Your task to perform on an android device: Open Yahoo.com Image 0: 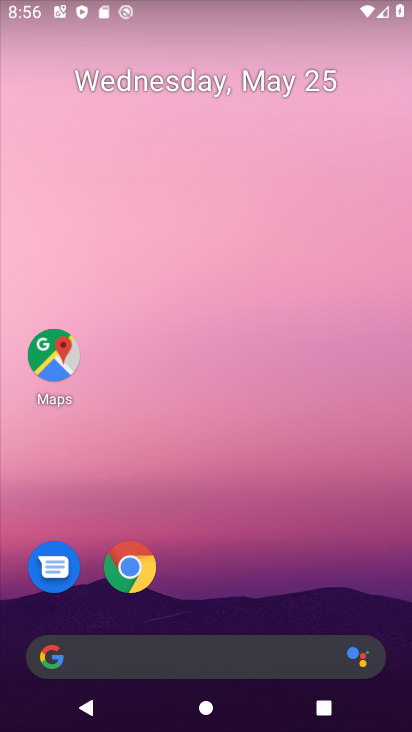
Step 0: click (319, 595)
Your task to perform on an android device: Open Yahoo.com Image 1: 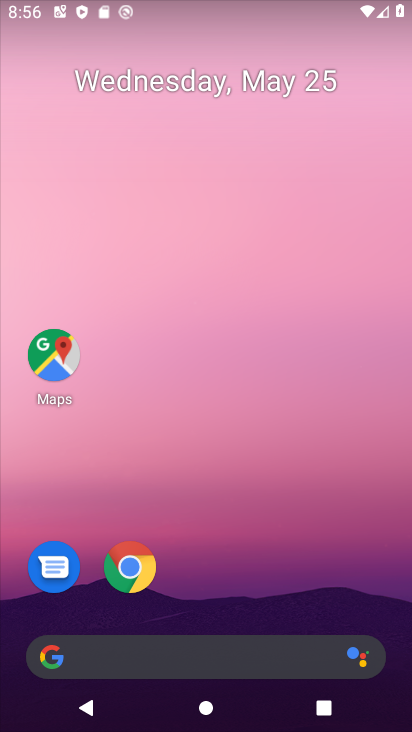
Step 1: click (241, 647)
Your task to perform on an android device: Open Yahoo.com Image 2: 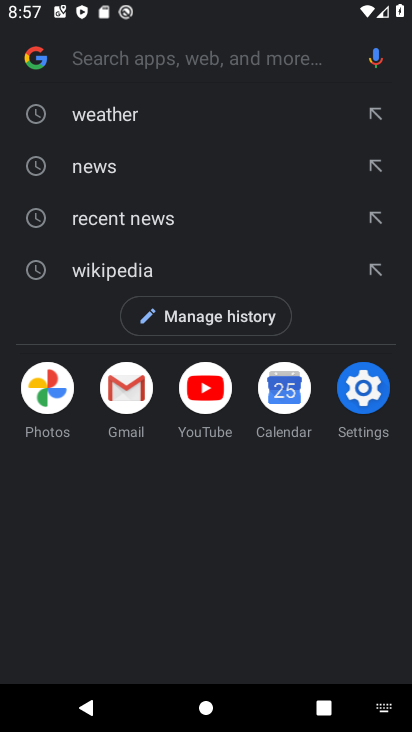
Step 2: type "yahoo.com"
Your task to perform on an android device: Open Yahoo.com Image 3: 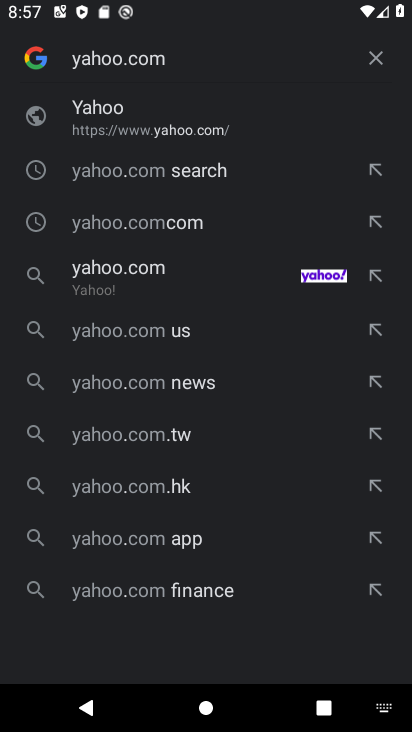
Step 3: click (142, 78)
Your task to perform on an android device: Open Yahoo.com Image 4: 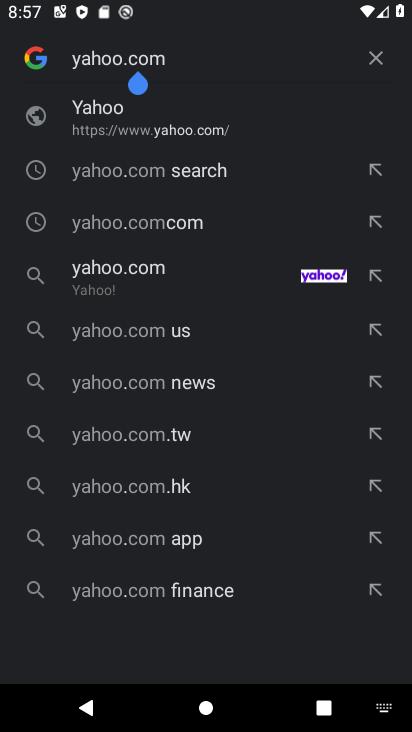
Step 4: task complete